Your task to perform on an android device: Open display settings Image 0: 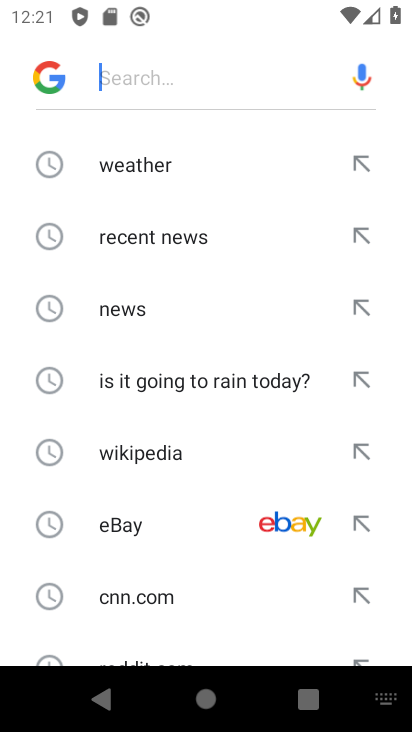
Step 0: drag from (207, 18) to (238, 529)
Your task to perform on an android device: Open display settings Image 1: 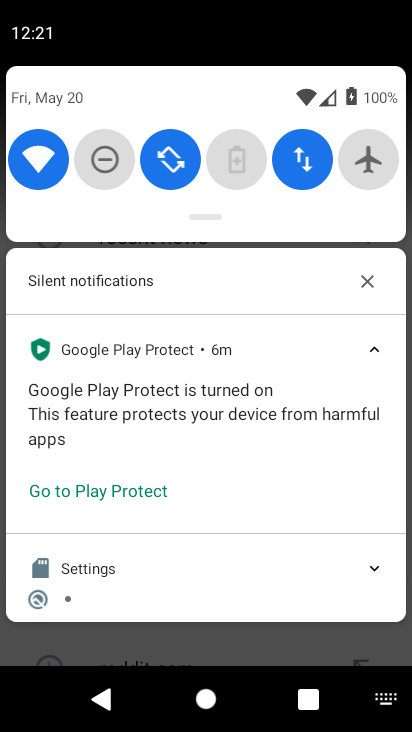
Step 1: drag from (226, 80) to (257, 525)
Your task to perform on an android device: Open display settings Image 2: 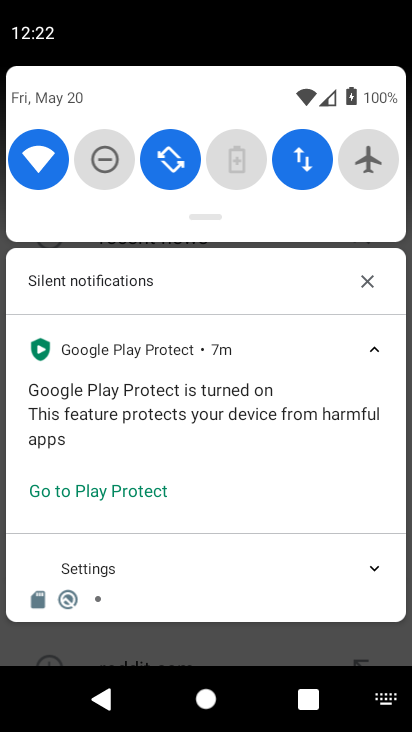
Step 2: drag from (211, 107) to (260, 617)
Your task to perform on an android device: Open display settings Image 3: 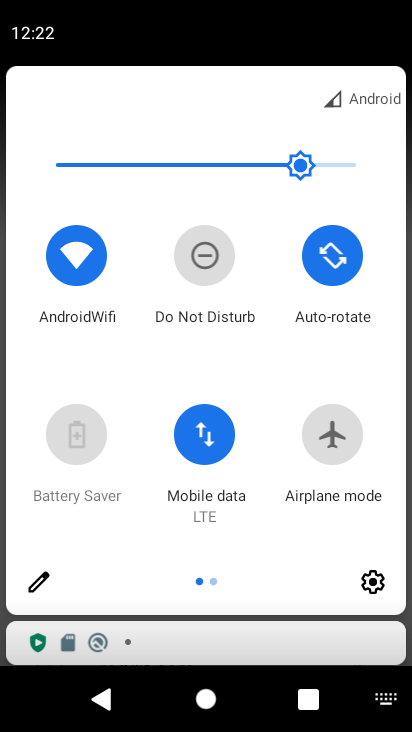
Step 3: click (375, 584)
Your task to perform on an android device: Open display settings Image 4: 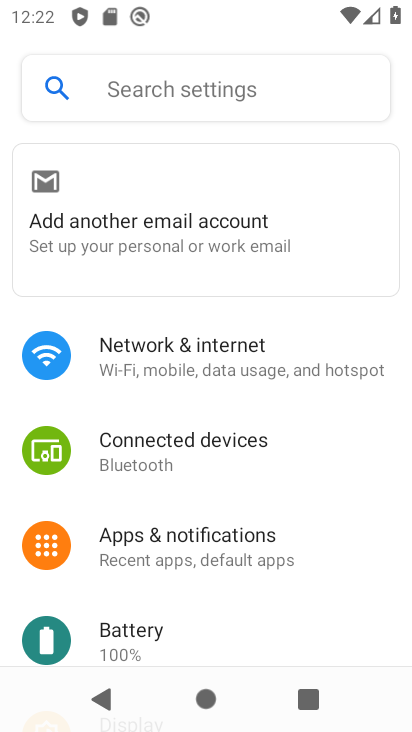
Step 4: drag from (117, 465) to (140, 75)
Your task to perform on an android device: Open display settings Image 5: 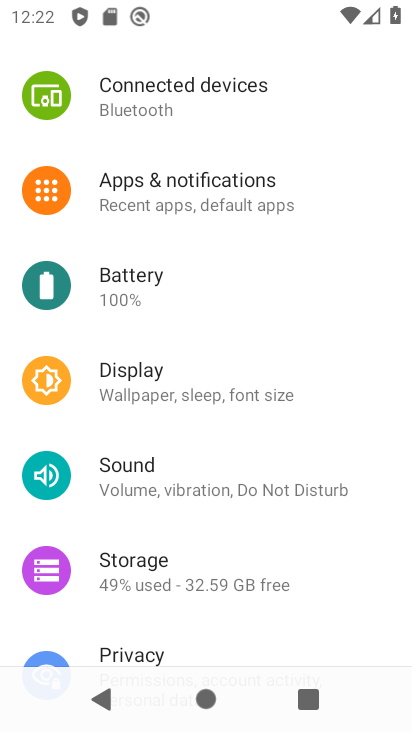
Step 5: click (119, 624)
Your task to perform on an android device: Open display settings Image 6: 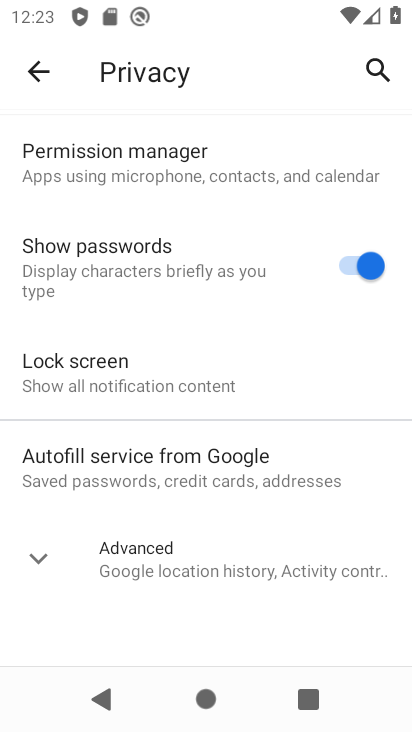
Step 6: task complete